Your task to perform on an android device: turn off notifications in google photos Image 0: 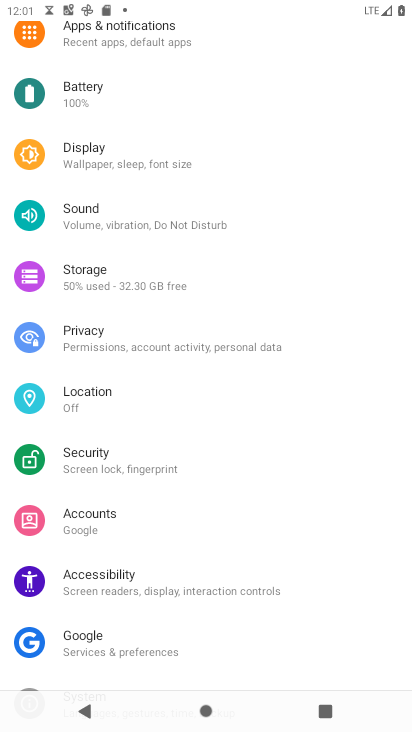
Step 0: press home button
Your task to perform on an android device: turn off notifications in google photos Image 1: 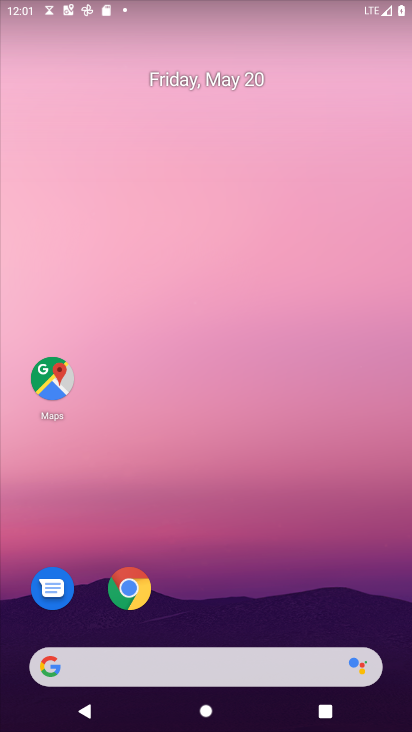
Step 1: drag from (278, 566) to (180, 28)
Your task to perform on an android device: turn off notifications in google photos Image 2: 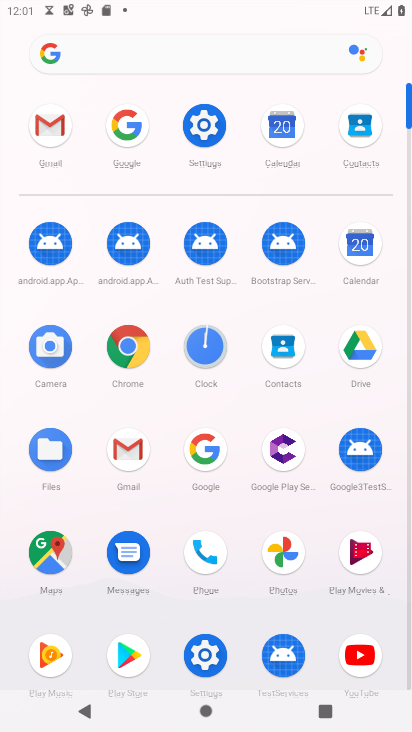
Step 2: click (288, 555)
Your task to perform on an android device: turn off notifications in google photos Image 3: 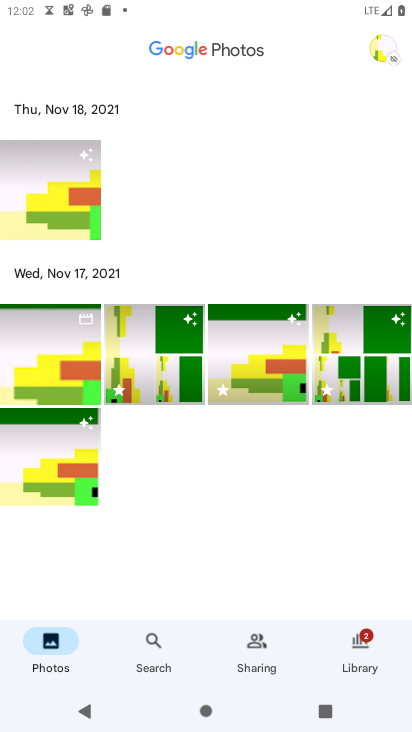
Step 3: click (373, 43)
Your task to perform on an android device: turn off notifications in google photos Image 4: 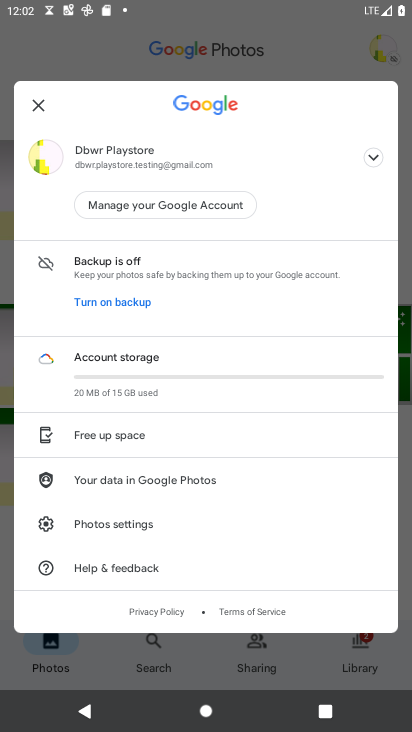
Step 4: click (125, 520)
Your task to perform on an android device: turn off notifications in google photos Image 5: 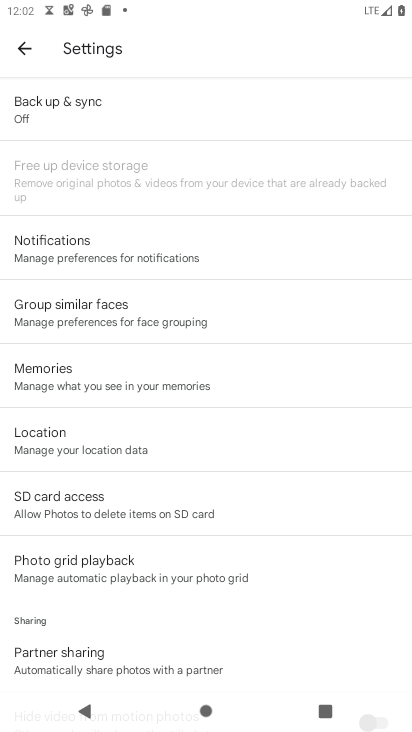
Step 5: click (89, 253)
Your task to perform on an android device: turn off notifications in google photos Image 6: 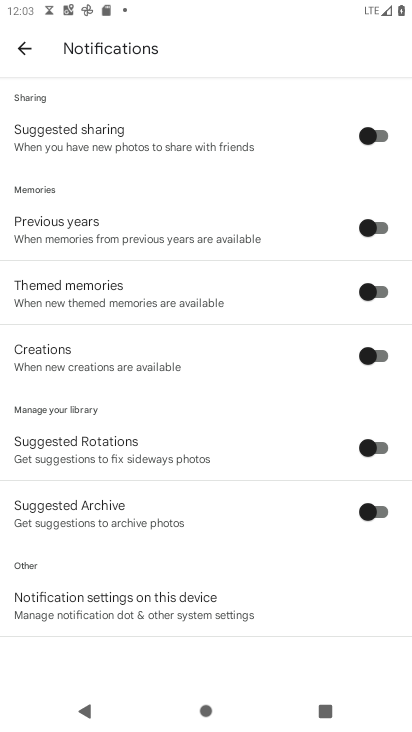
Step 6: task complete